Your task to perform on an android device: Open Google Chrome and open the bookmarks view Image 0: 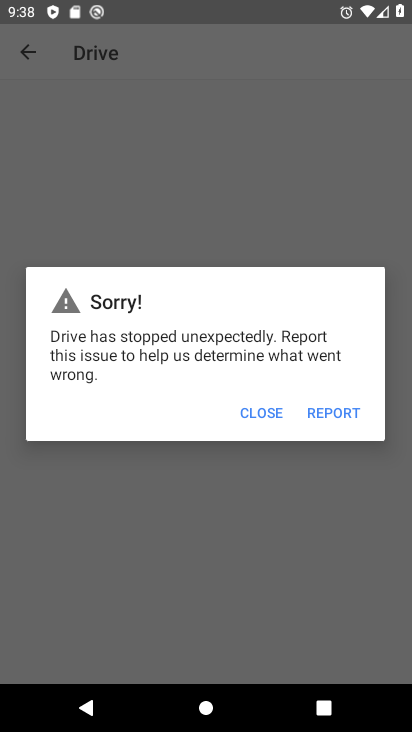
Step 0: press home button
Your task to perform on an android device: Open Google Chrome and open the bookmarks view Image 1: 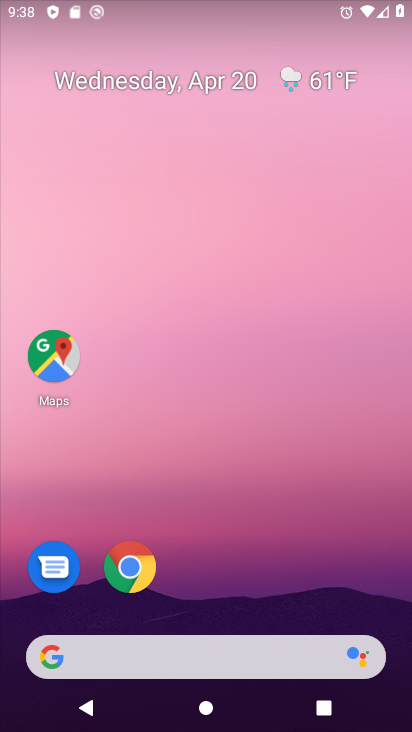
Step 1: drag from (215, 373) to (212, 134)
Your task to perform on an android device: Open Google Chrome and open the bookmarks view Image 2: 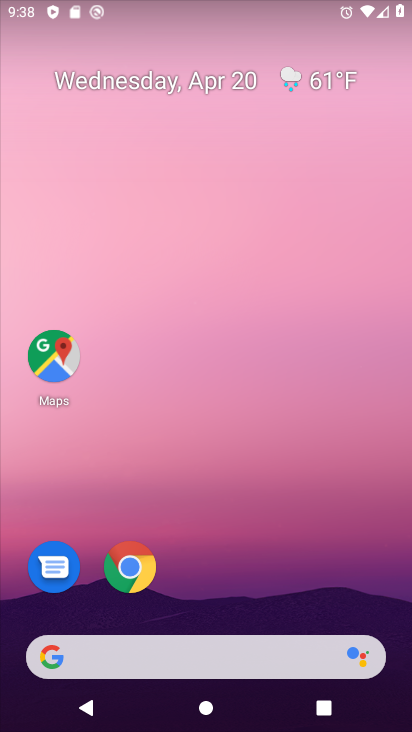
Step 2: click (144, 567)
Your task to perform on an android device: Open Google Chrome and open the bookmarks view Image 3: 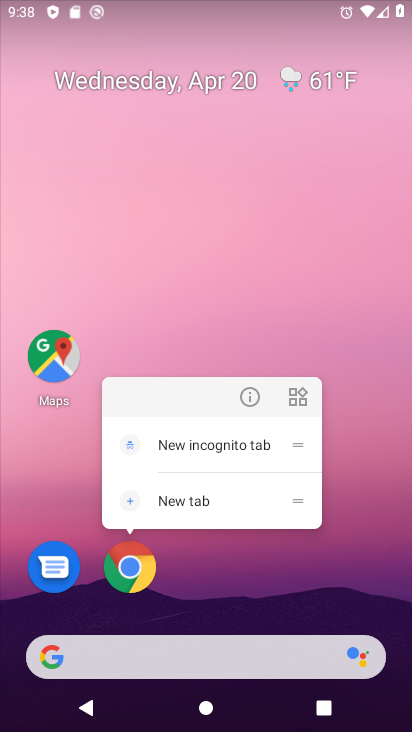
Step 3: click (142, 566)
Your task to perform on an android device: Open Google Chrome and open the bookmarks view Image 4: 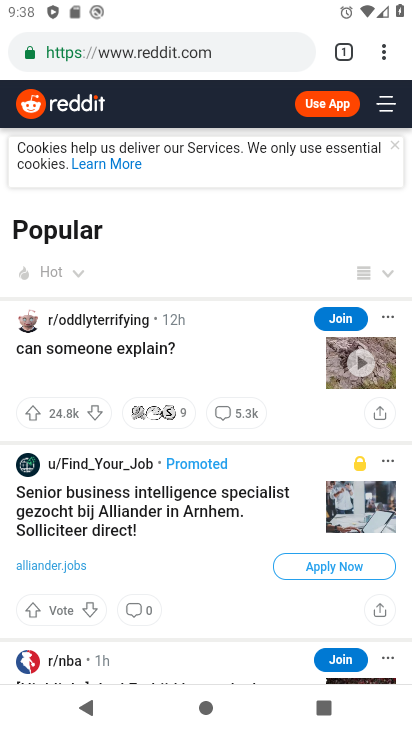
Step 4: task complete